Your task to perform on an android device: Open Youtube and go to the subscriptions tab Image 0: 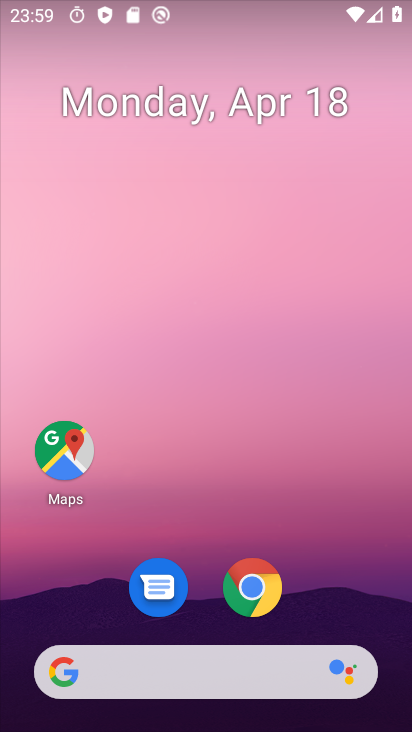
Step 0: drag from (385, 569) to (351, 169)
Your task to perform on an android device: Open Youtube and go to the subscriptions tab Image 1: 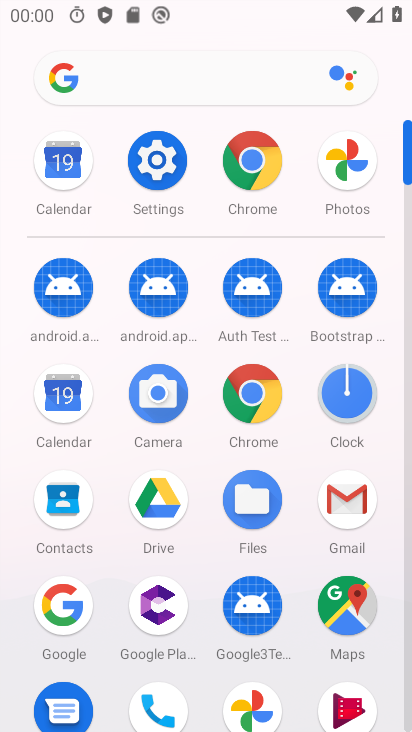
Step 1: drag from (289, 612) to (296, 236)
Your task to perform on an android device: Open Youtube and go to the subscriptions tab Image 2: 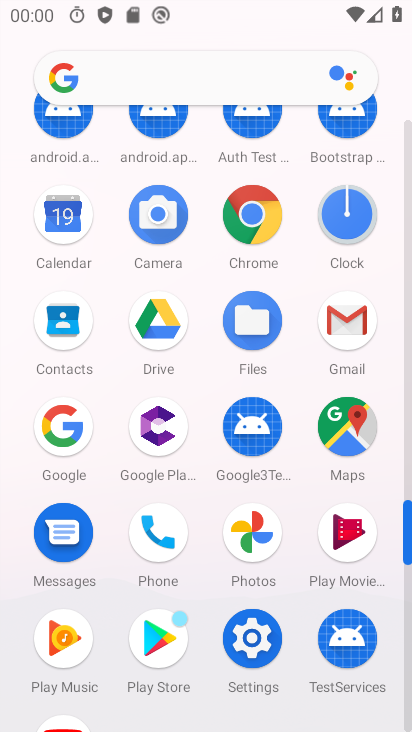
Step 2: drag from (195, 592) to (211, 266)
Your task to perform on an android device: Open Youtube and go to the subscriptions tab Image 3: 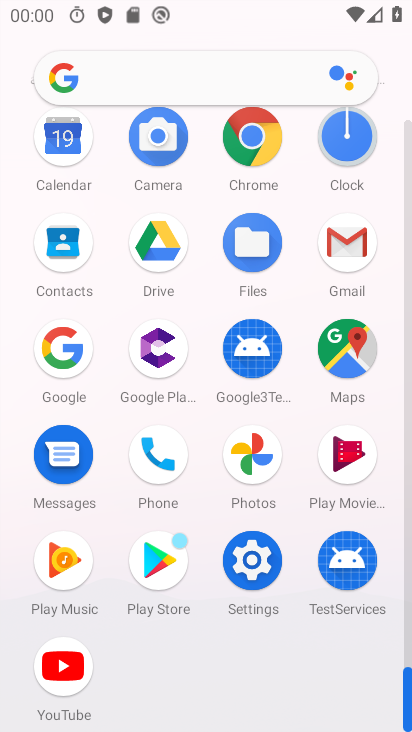
Step 3: click (59, 680)
Your task to perform on an android device: Open Youtube and go to the subscriptions tab Image 4: 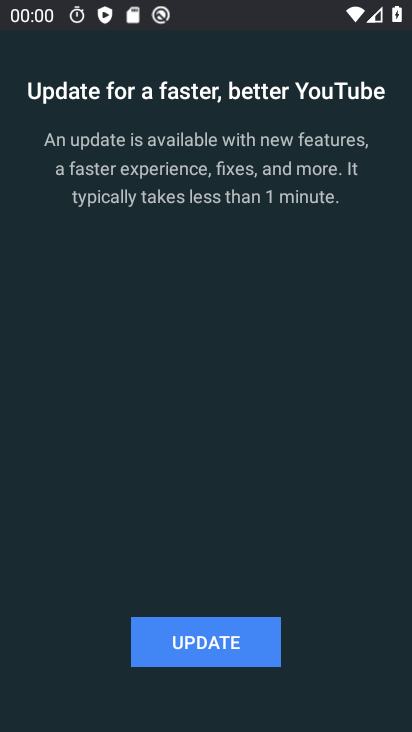
Step 4: click (216, 639)
Your task to perform on an android device: Open Youtube and go to the subscriptions tab Image 5: 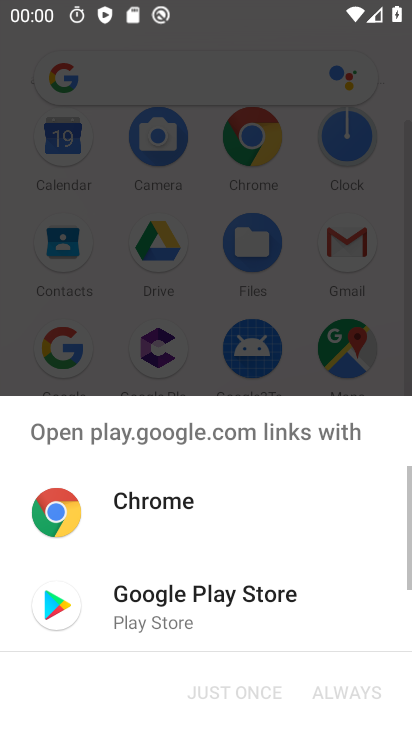
Step 5: click (178, 602)
Your task to perform on an android device: Open Youtube and go to the subscriptions tab Image 6: 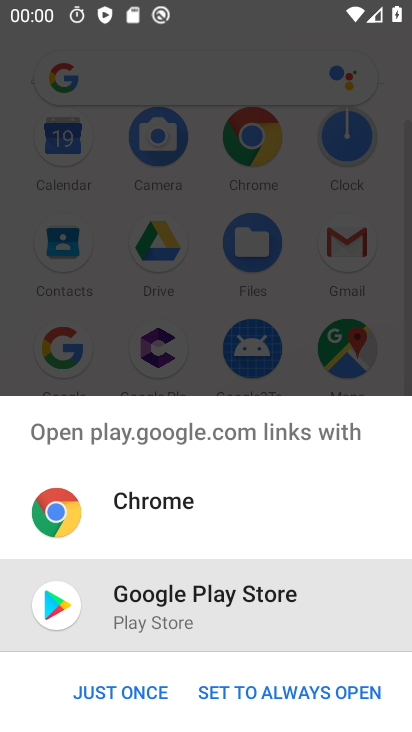
Step 6: click (150, 685)
Your task to perform on an android device: Open Youtube and go to the subscriptions tab Image 7: 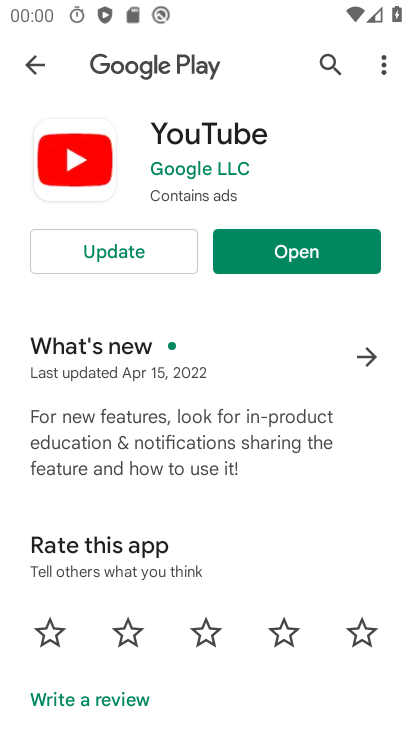
Step 7: click (144, 255)
Your task to perform on an android device: Open Youtube and go to the subscriptions tab Image 8: 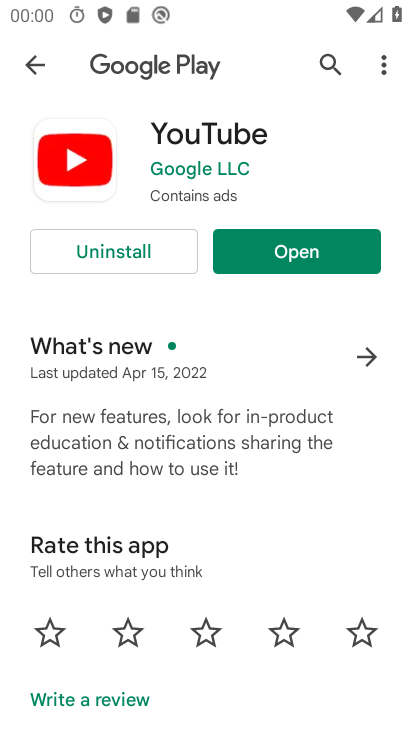
Step 8: click (267, 250)
Your task to perform on an android device: Open Youtube and go to the subscriptions tab Image 9: 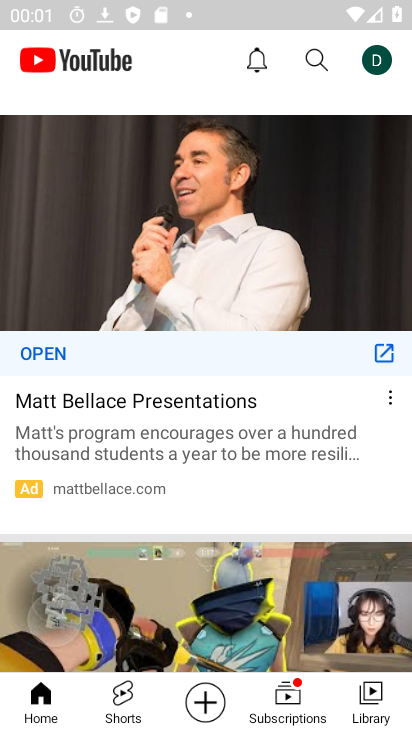
Step 9: click (296, 702)
Your task to perform on an android device: Open Youtube and go to the subscriptions tab Image 10: 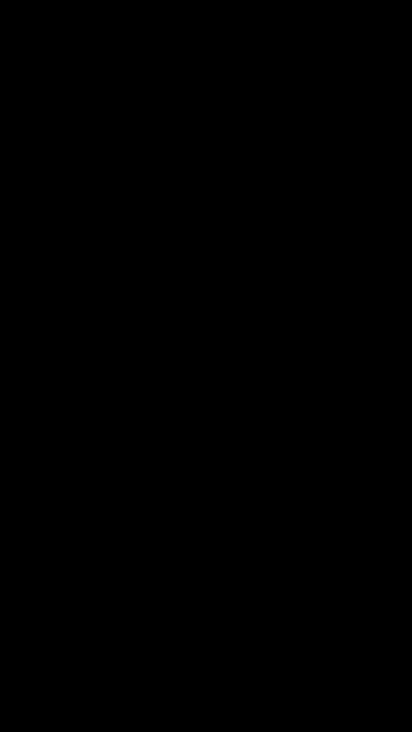
Step 10: task complete